Your task to perform on an android device: toggle priority inbox in the gmail app Image 0: 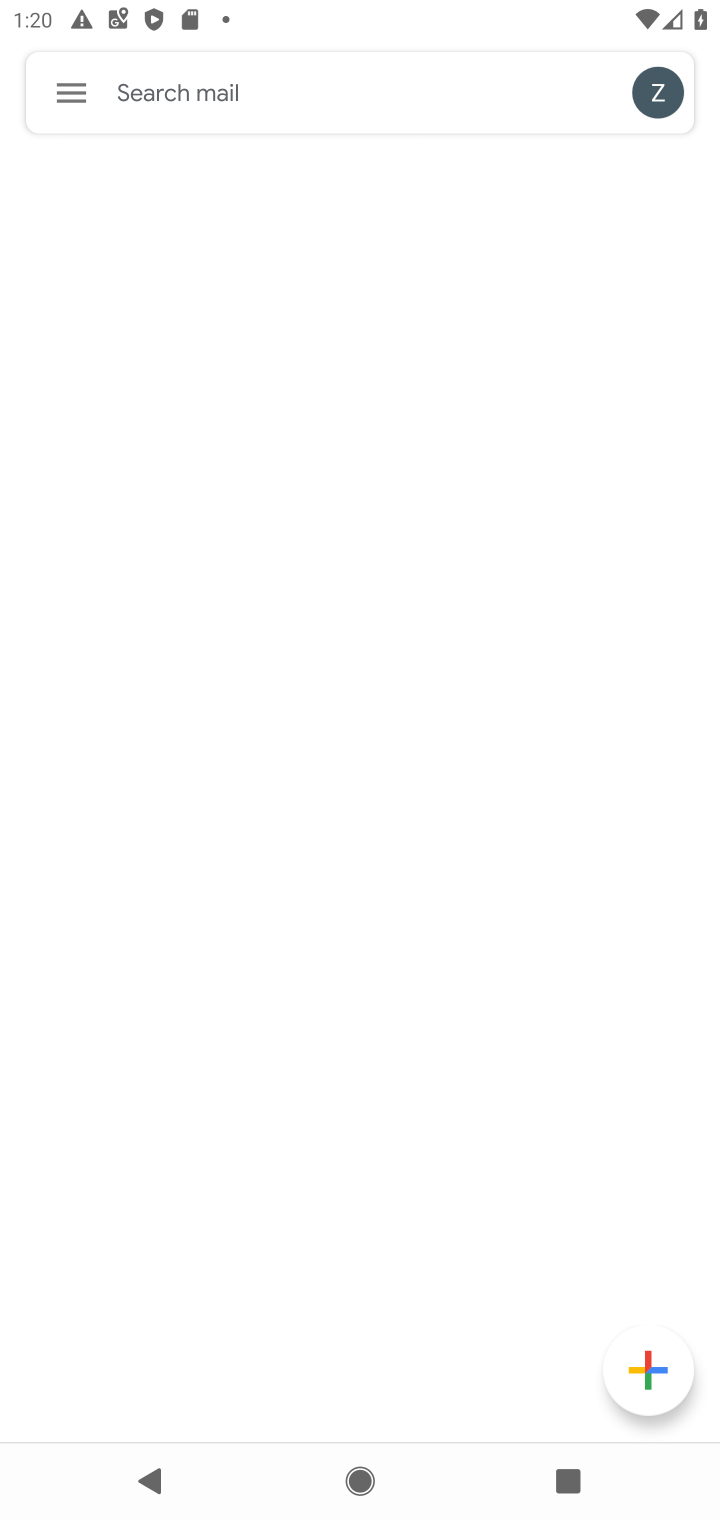
Step 0: press home button
Your task to perform on an android device: toggle priority inbox in the gmail app Image 1: 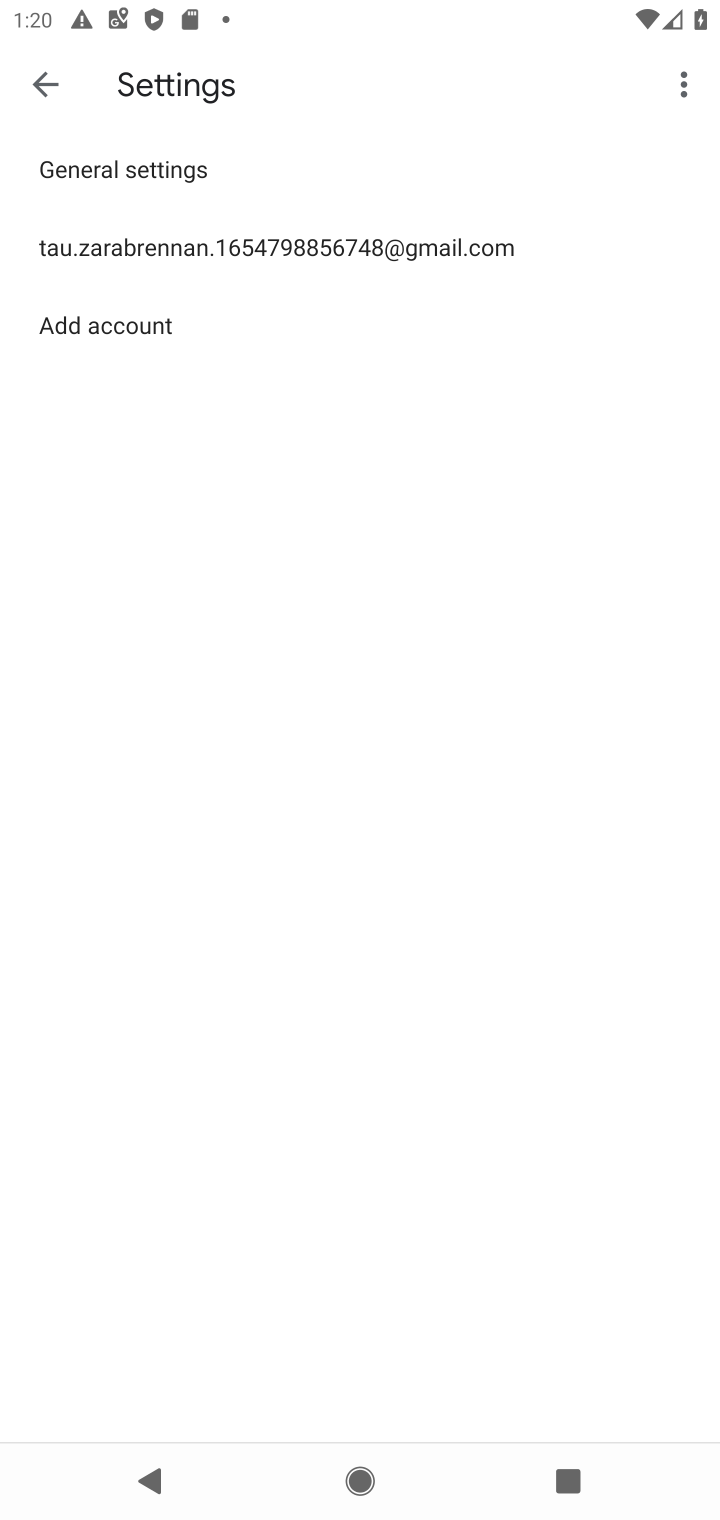
Step 1: press home button
Your task to perform on an android device: toggle priority inbox in the gmail app Image 2: 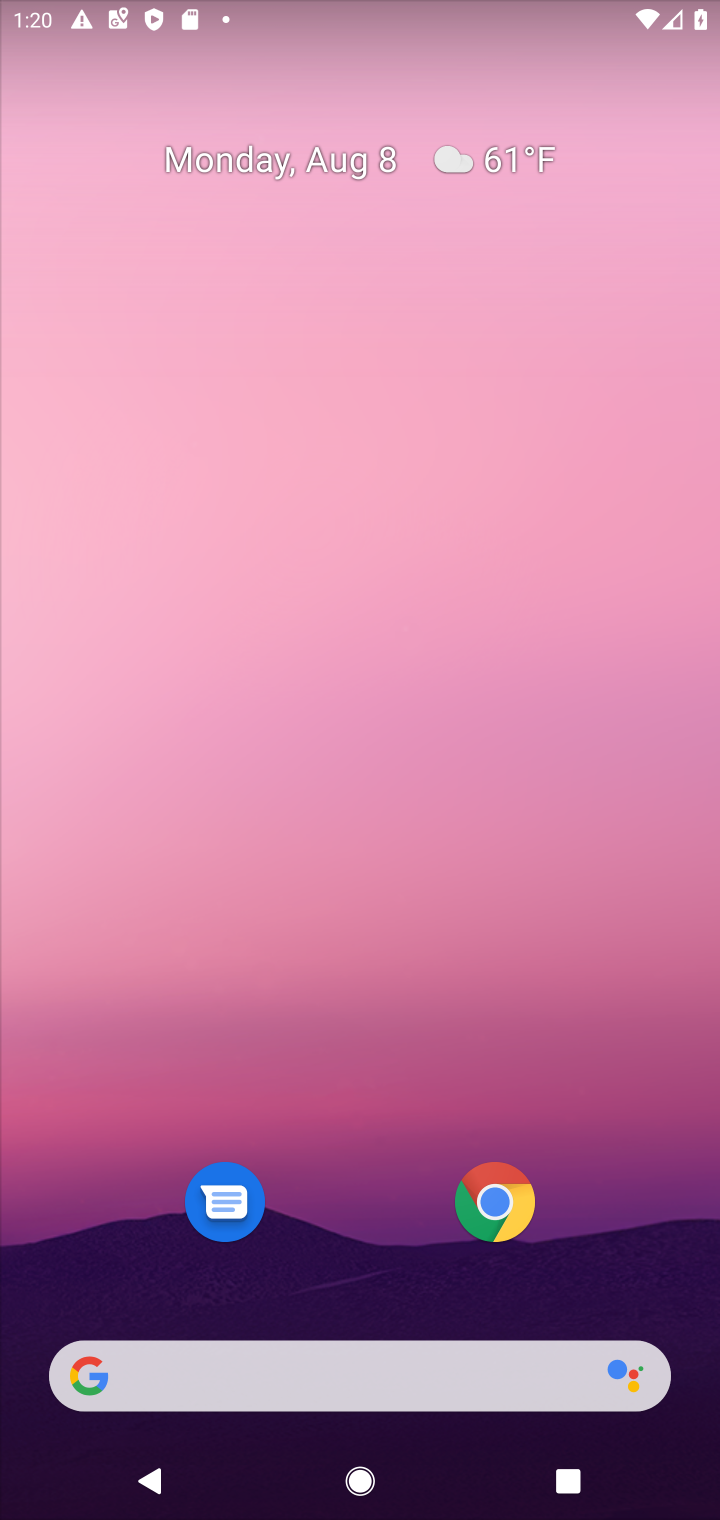
Step 2: drag from (638, 1260) to (681, 65)
Your task to perform on an android device: toggle priority inbox in the gmail app Image 3: 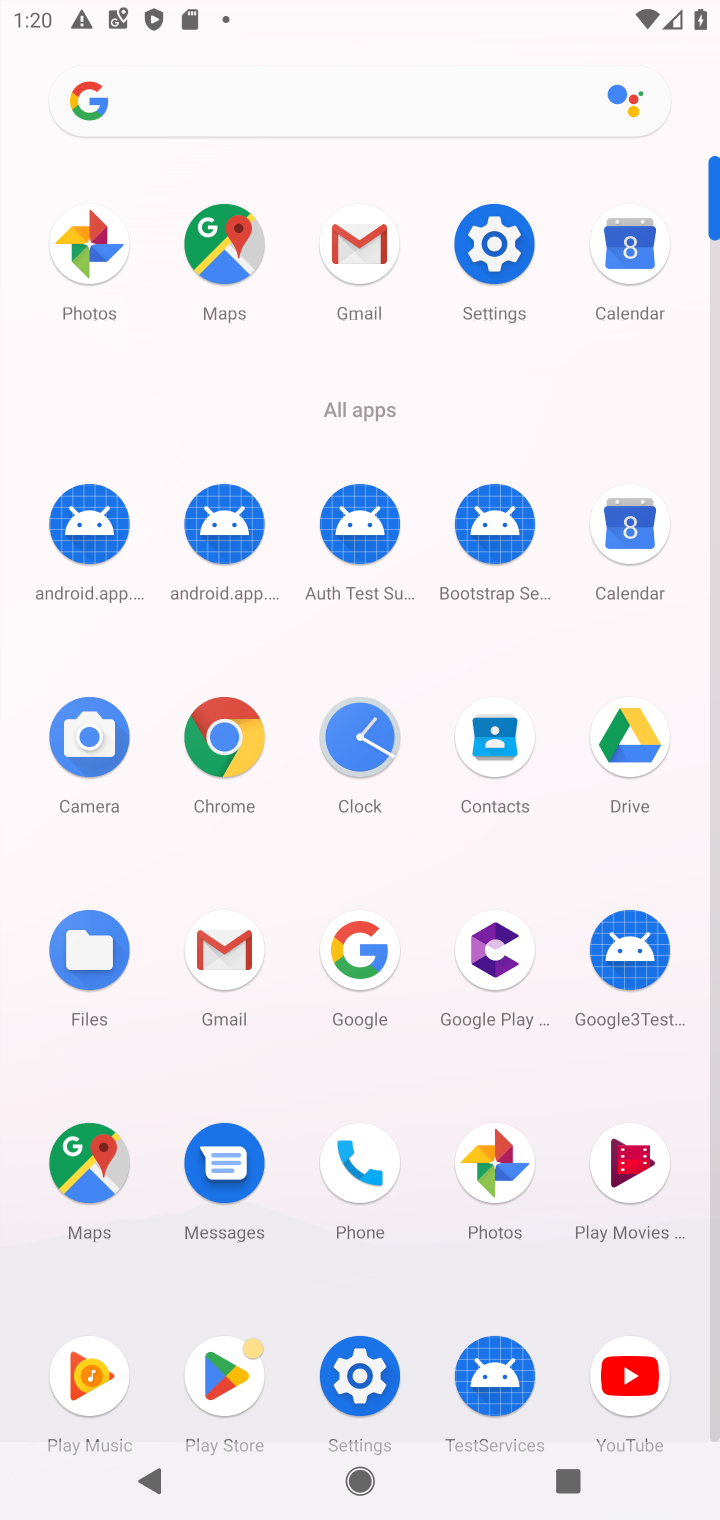
Step 3: click (234, 955)
Your task to perform on an android device: toggle priority inbox in the gmail app Image 4: 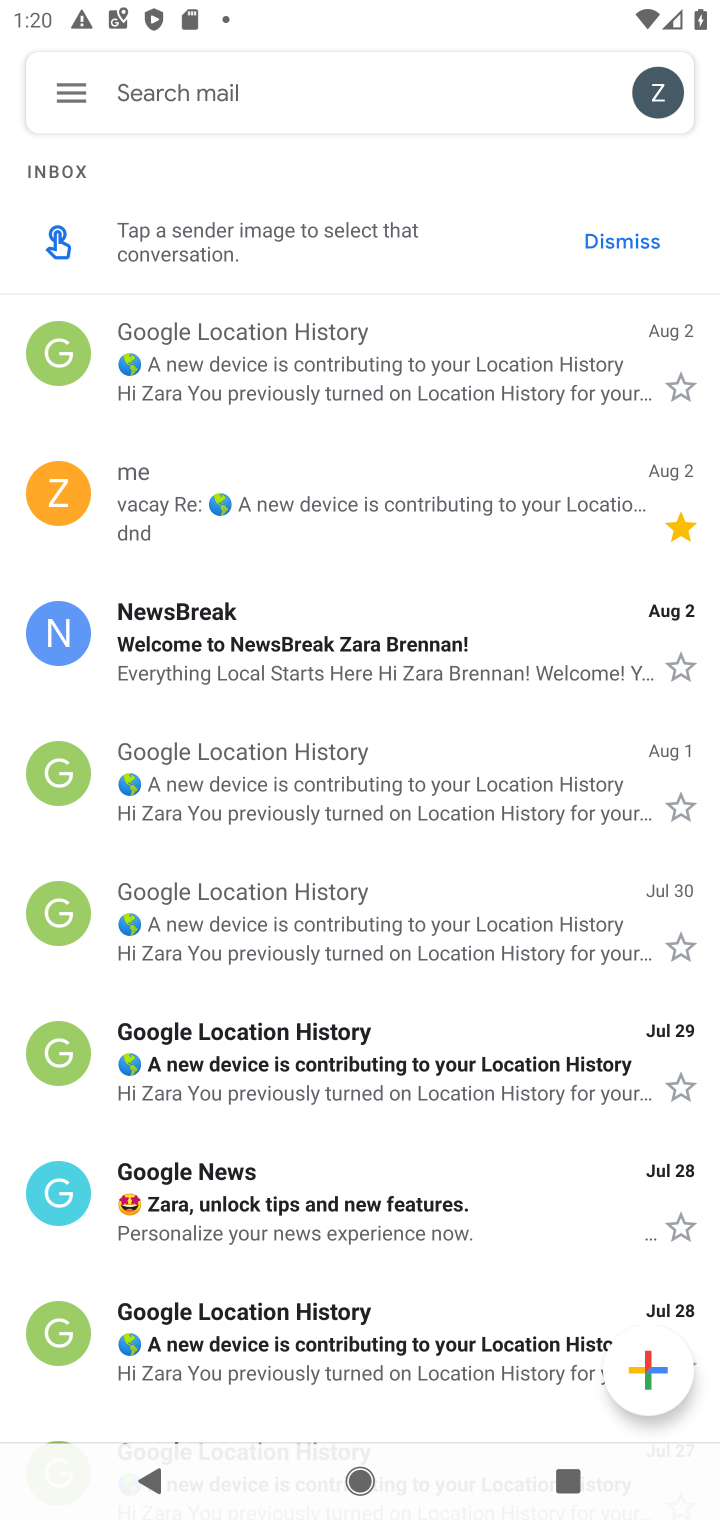
Step 4: click (73, 96)
Your task to perform on an android device: toggle priority inbox in the gmail app Image 5: 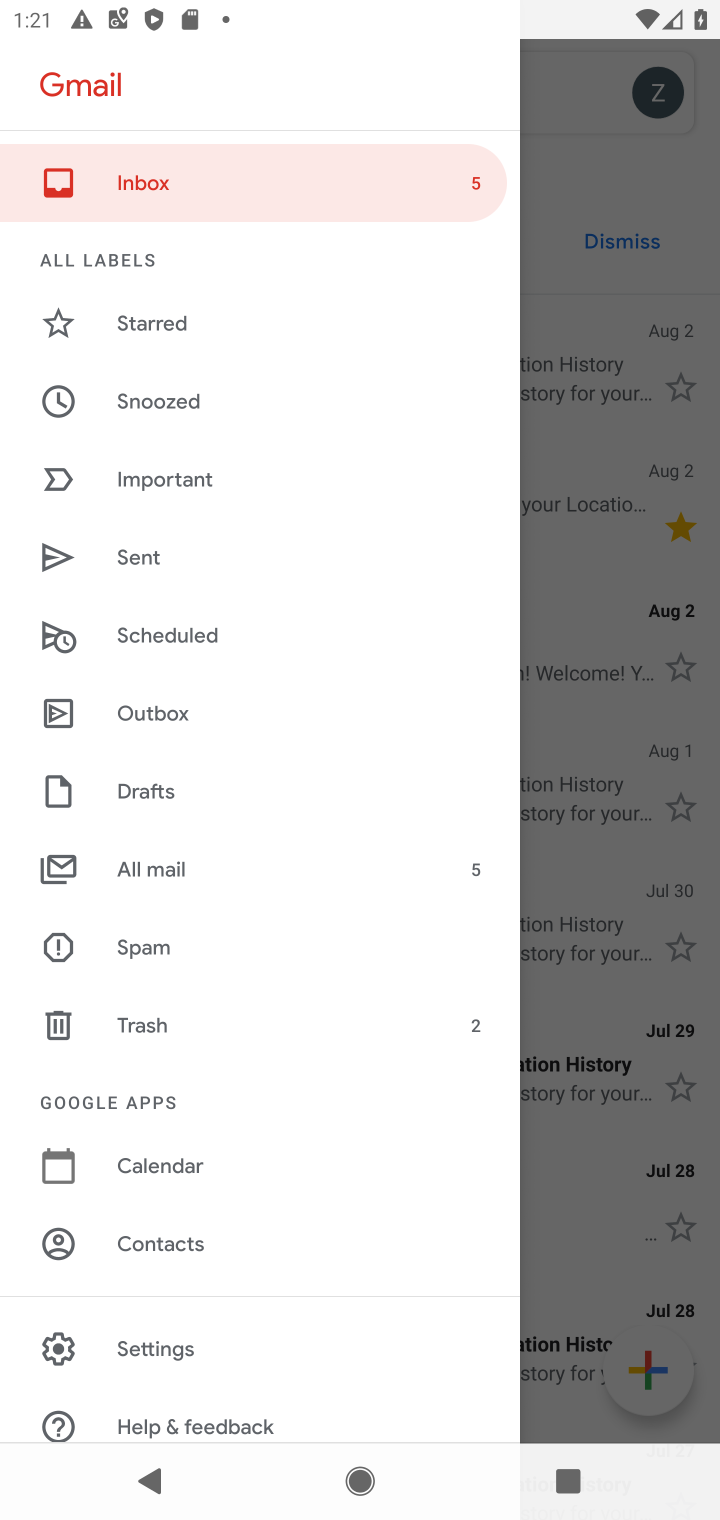
Step 5: click (177, 1350)
Your task to perform on an android device: toggle priority inbox in the gmail app Image 6: 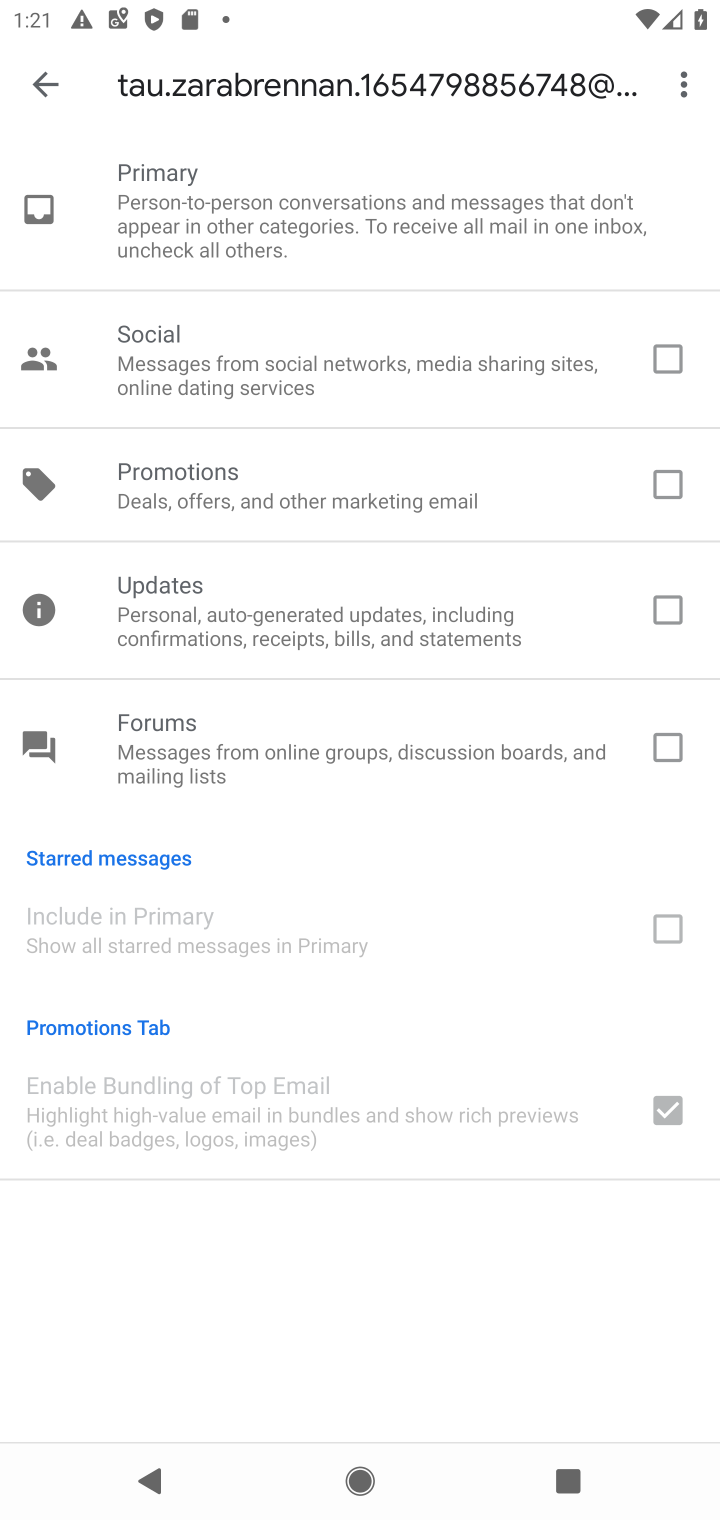
Step 6: press back button
Your task to perform on an android device: toggle priority inbox in the gmail app Image 7: 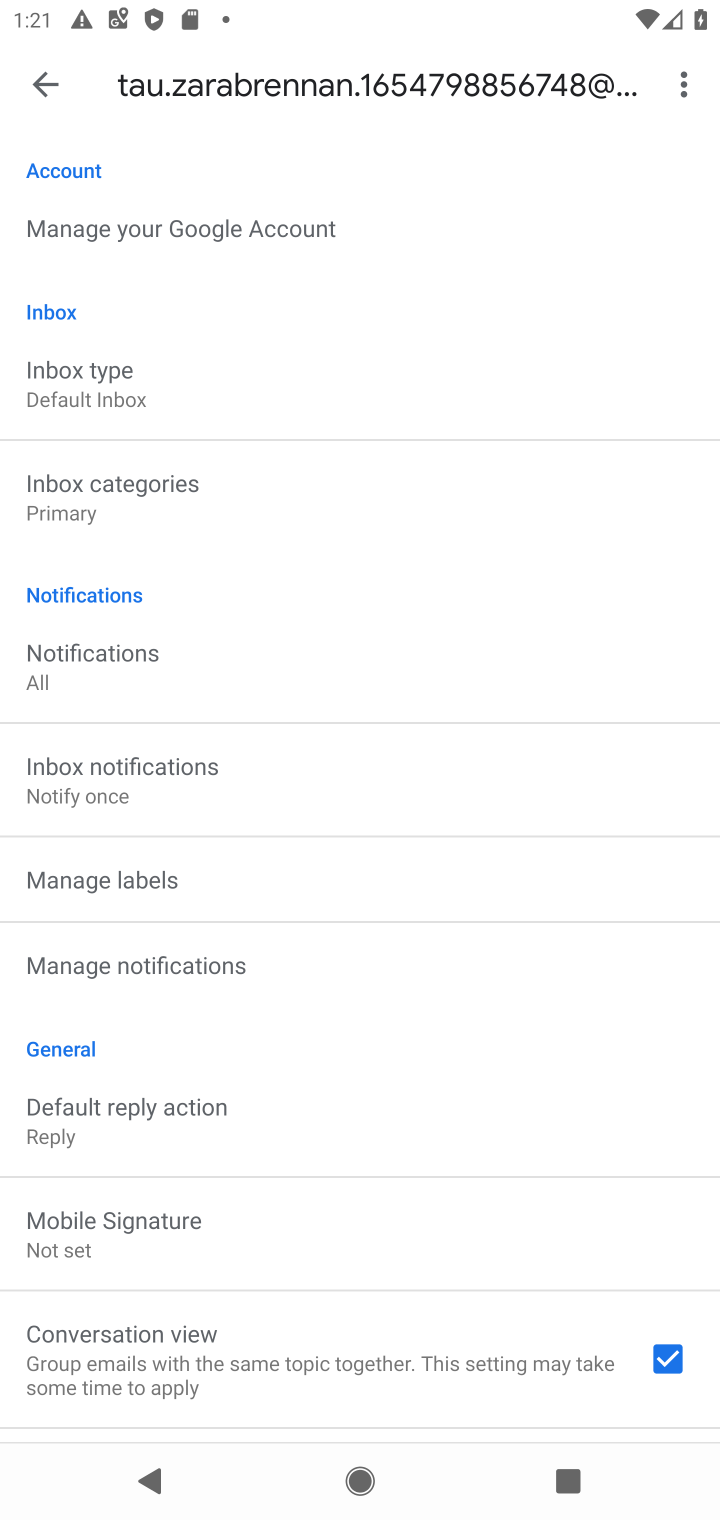
Step 7: click (141, 398)
Your task to perform on an android device: toggle priority inbox in the gmail app Image 8: 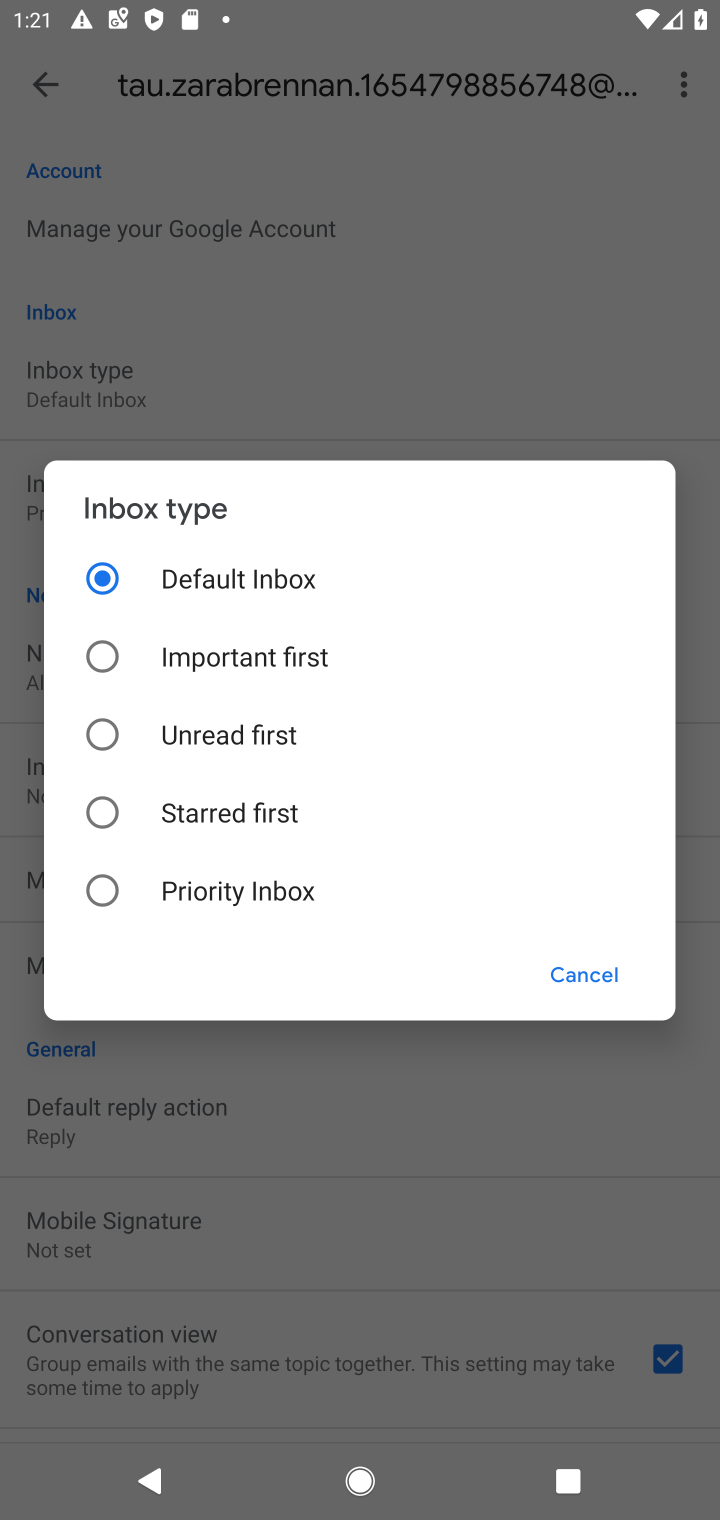
Step 8: click (99, 884)
Your task to perform on an android device: toggle priority inbox in the gmail app Image 9: 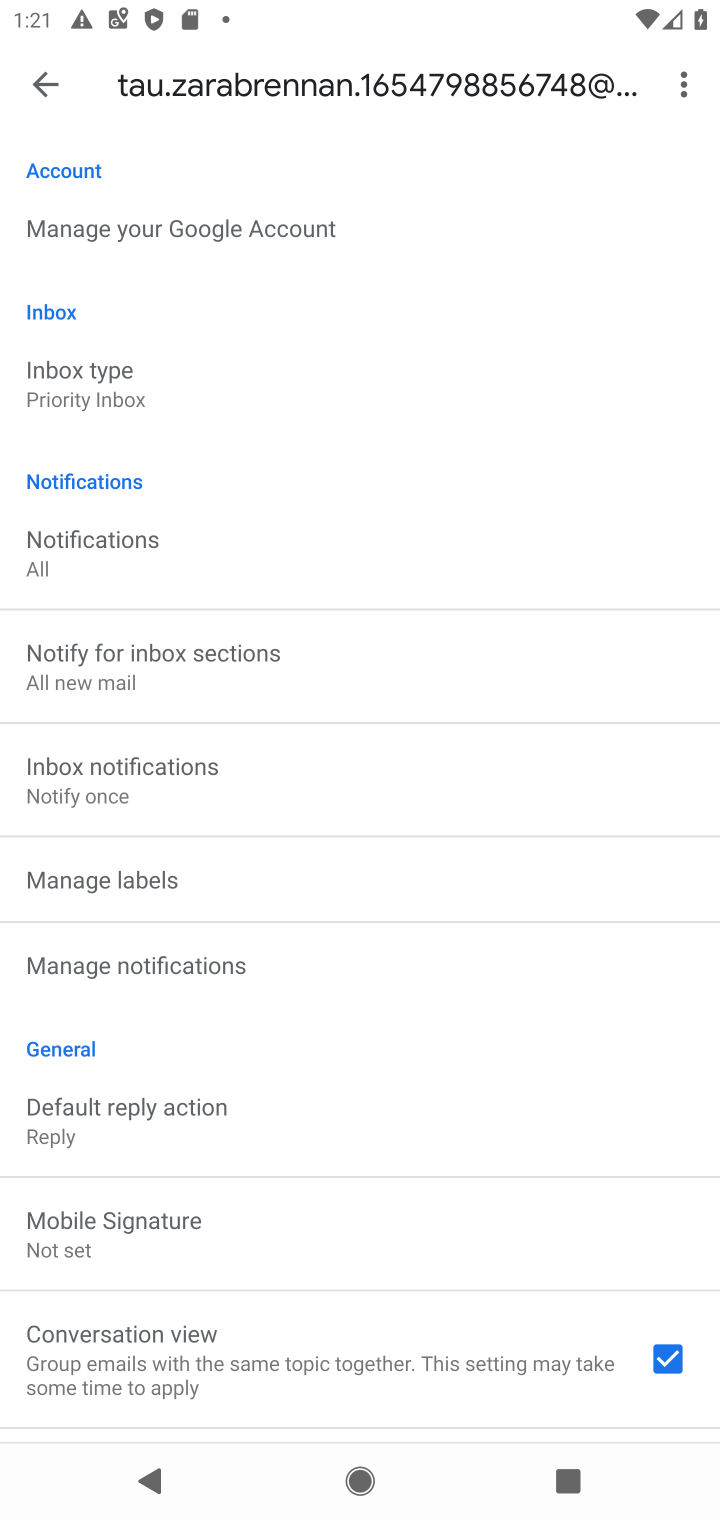
Step 9: task complete